Your task to perform on an android device: toggle translation in the chrome app Image 0: 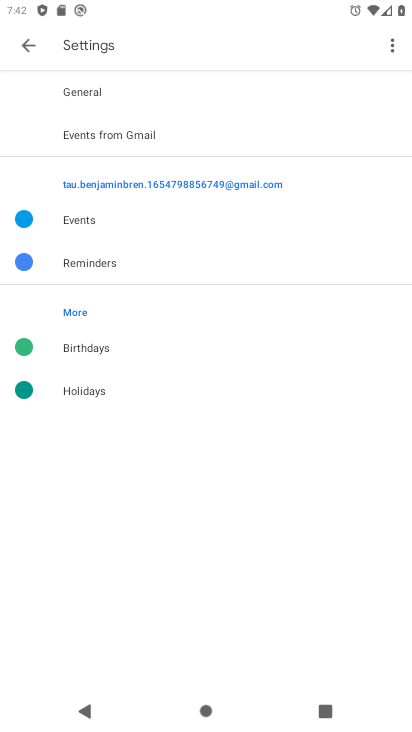
Step 0: press home button
Your task to perform on an android device: toggle translation in the chrome app Image 1: 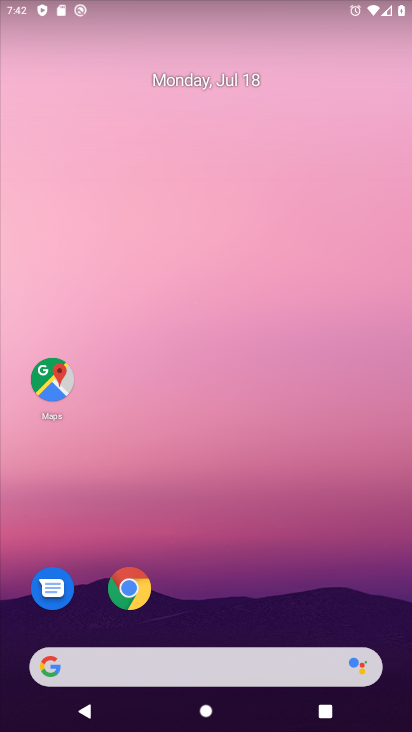
Step 1: click (127, 595)
Your task to perform on an android device: toggle translation in the chrome app Image 2: 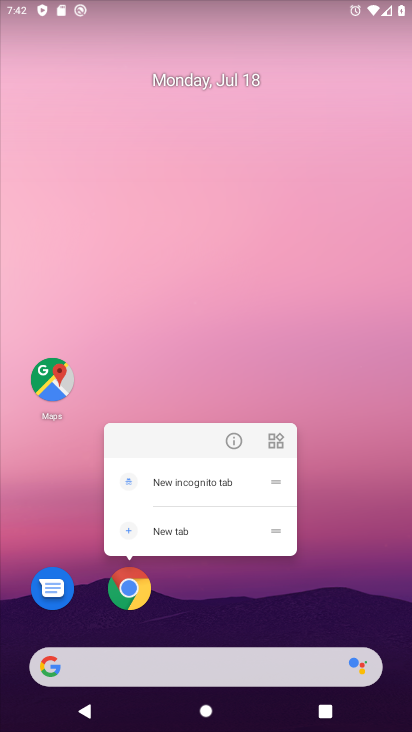
Step 2: click (135, 598)
Your task to perform on an android device: toggle translation in the chrome app Image 3: 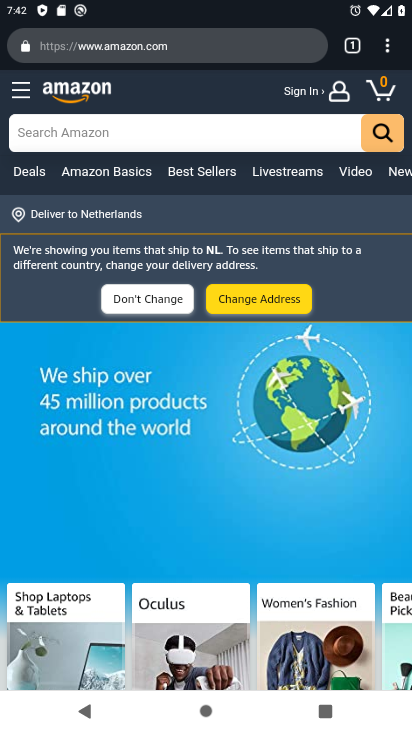
Step 3: click (391, 52)
Your task to perform on an android device: toggle translation in the chrome app Image 4: 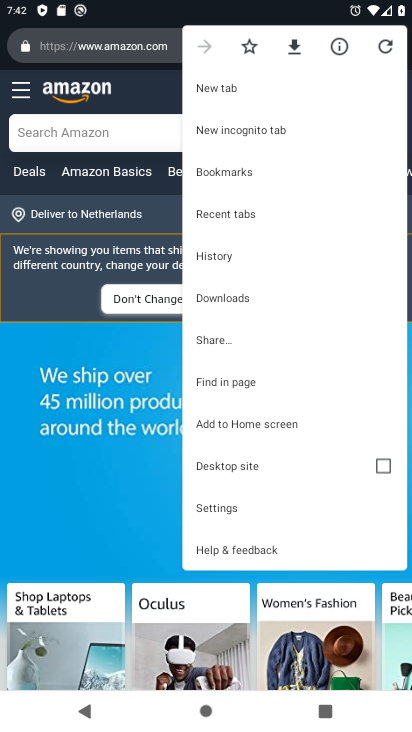
Step 4: click (228, 512)
Your task to perform on an android device: toggle translation in the chrome app Image 5: 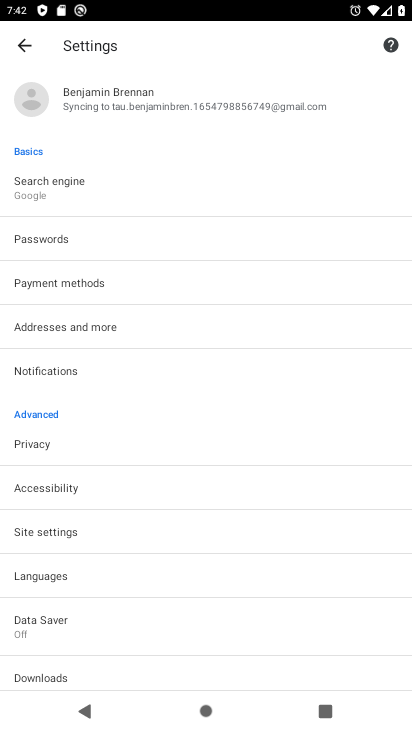
Step 5: click (51, 583)
Your task to perform on an android device: toggle translation in the chrome app Image 6: 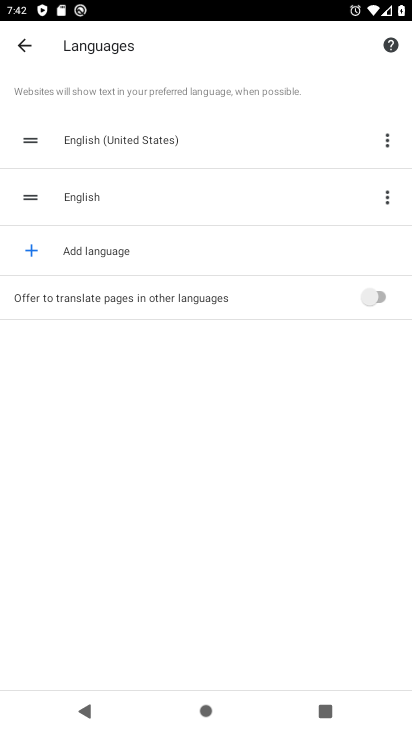
Step 6: click (398, 285)
Your task to perform on an android device: toggle translation in the chrome app Image 7: 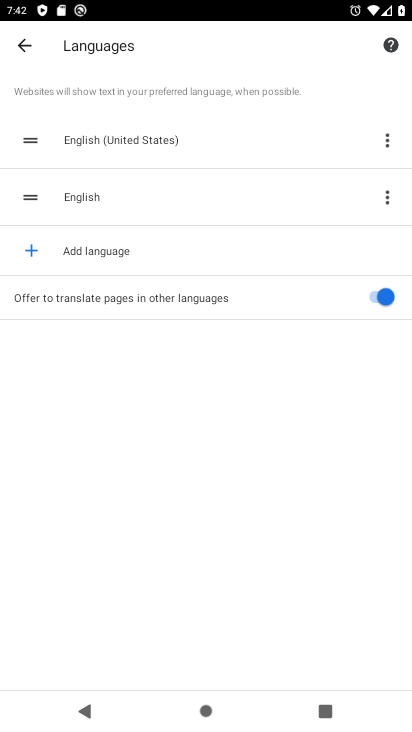
Step 7: task complete